Your task to perform on an android device: Open calendar and show me the second week of next month Image 0: 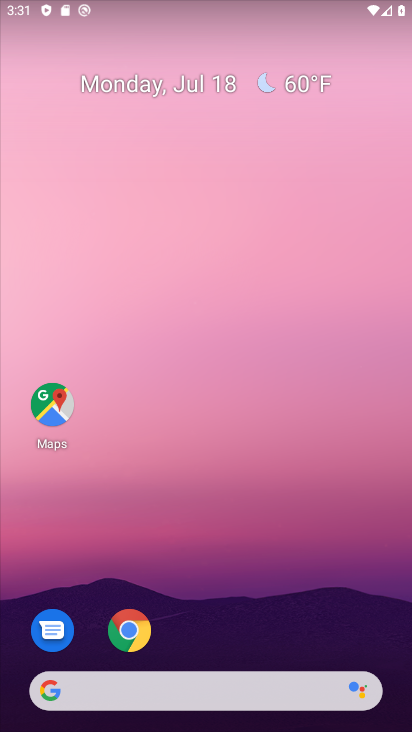
Step 0: drag from (228, 563) to (160, 127)
Your task to perform on an android device: Open calendar and show me the second week of next month Image 1: 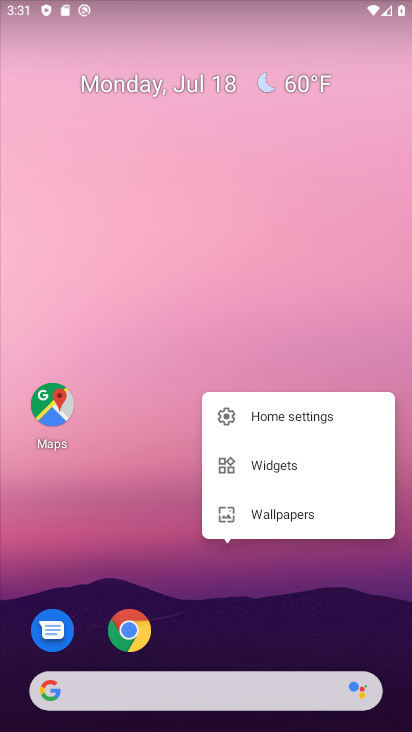
Step 1: click (219, 629)
Your task to perform on an android device: Open calendar and show me the second week of next month Image 2: 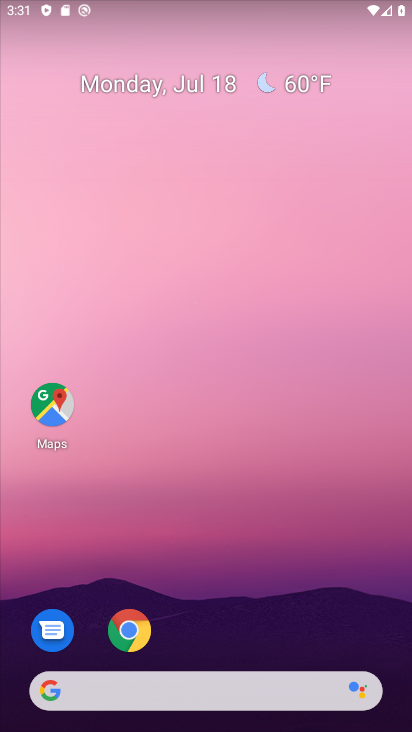
Step 2: drag from (286, 589) to (273, 484)
Your task to perform on an android device: Open calendar and show me the second week of next month Image 3: 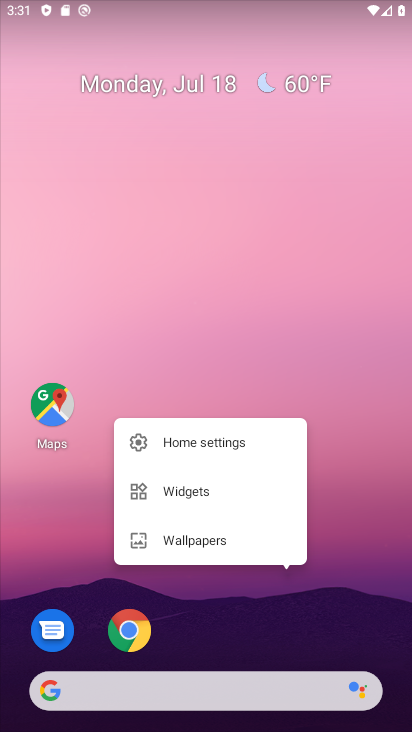
Step 3: click (359, 557)
Your task to perform on an android device: Open calendar and show me the second week of next month Image 4: 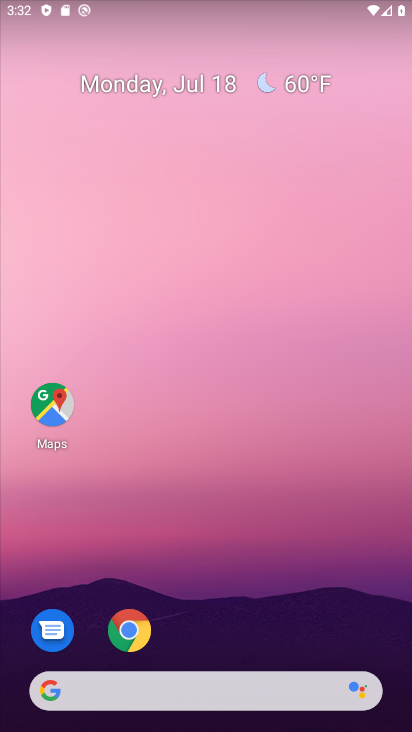
Step 4: drag from (295, 609) to (276, 16)
Your task to perform on an android device: Open calendar and show me the second week of next month Image 5: 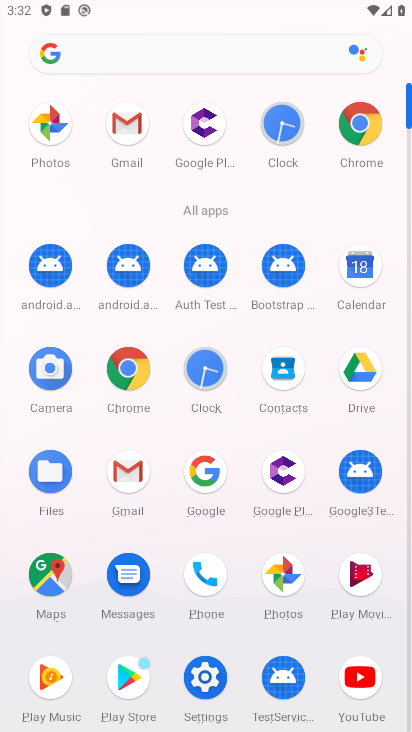
Step 5: click (360, 277)
Your task to perform on an android device: Open calendar and show me the second week of next month Image 6: 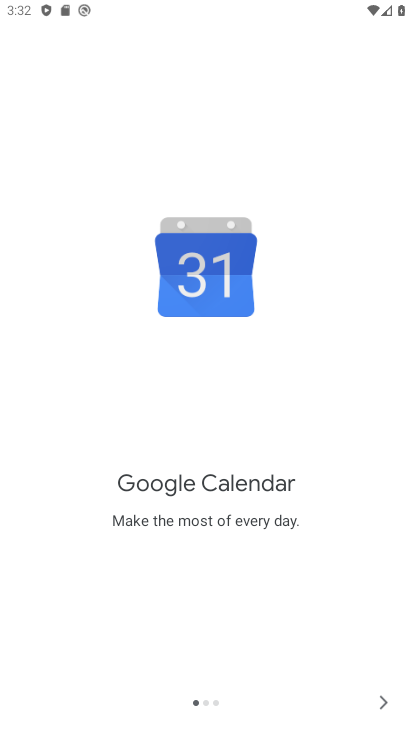
Step 6: click (379, 703)
Your task to perform on an android device: Open calendar and show me the second week of next month Image 7: 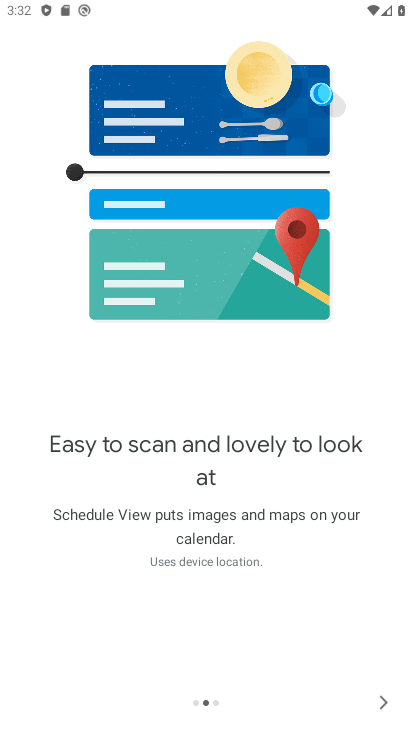
Step 7: click (379, 703)
Your task to perform on an android device: Open calendar and show me the second week of next month Image 8: 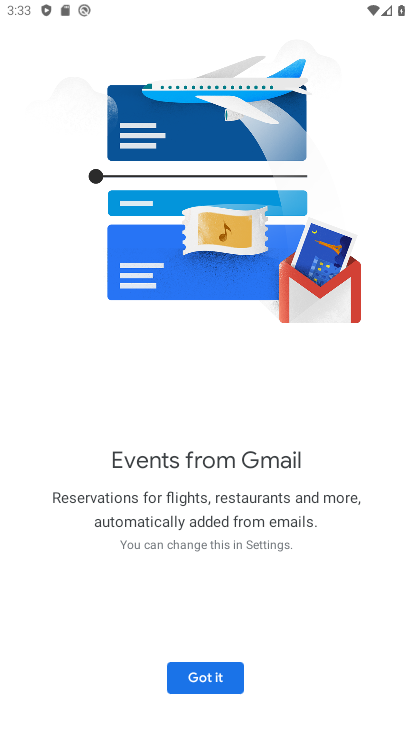
Step 8: click (196, 674)
Your task to perform on an android device: Open calendar and show me the second week of next month Image 9: 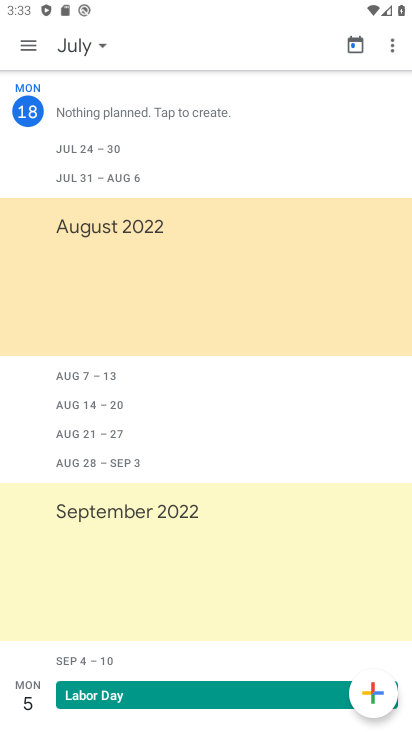
Step 9: click (32, 53)
Your task to perform on an android device: Open calendar and show me the second week of next month Image 10: 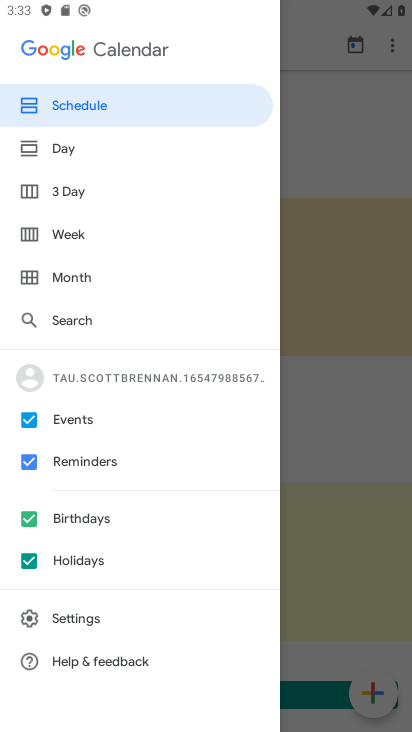
Step 10: click (85, 236)
Your task to perform on an android device: Open calendar and show me the second week of next month Image 11: 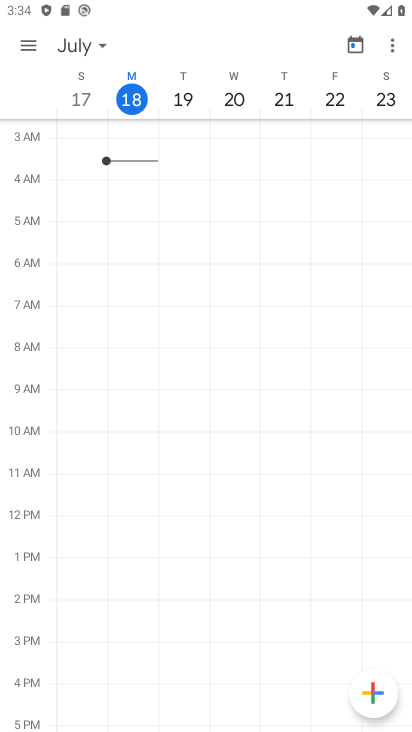
Step 11: click (86, 43)
Your task to perform on an android device: Open calendar and show me the second week of next month Image 12: 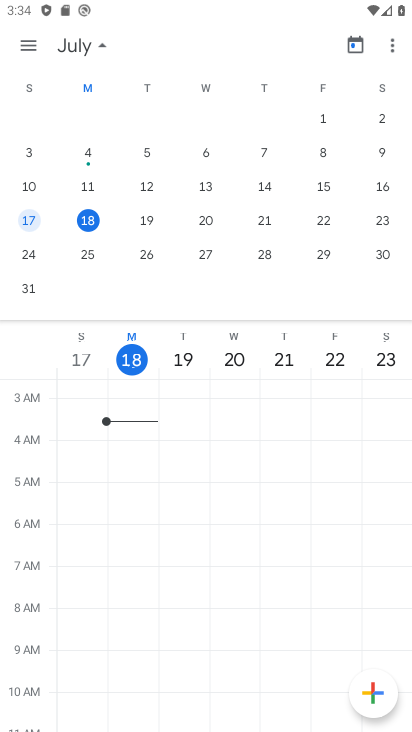
Step 12: drag from (338, 250) to (9, 249)
Your task to perform on an android device: Open calendar and show me the second week of next month Image 13: 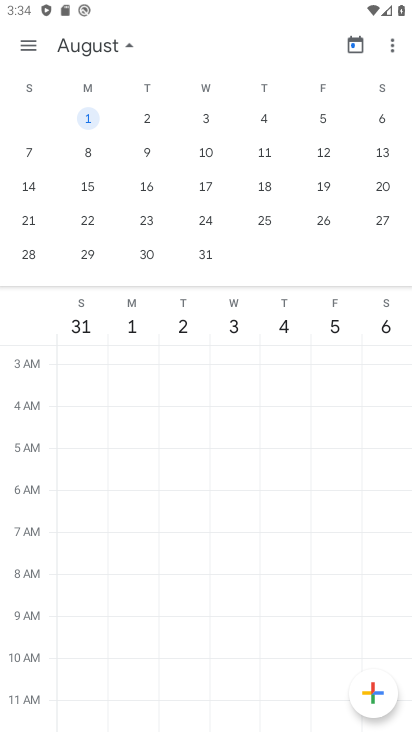
Step 13: click (150, 155)
Your task to perform on an android device: Open calendar and show me the second week of next month Image 14: 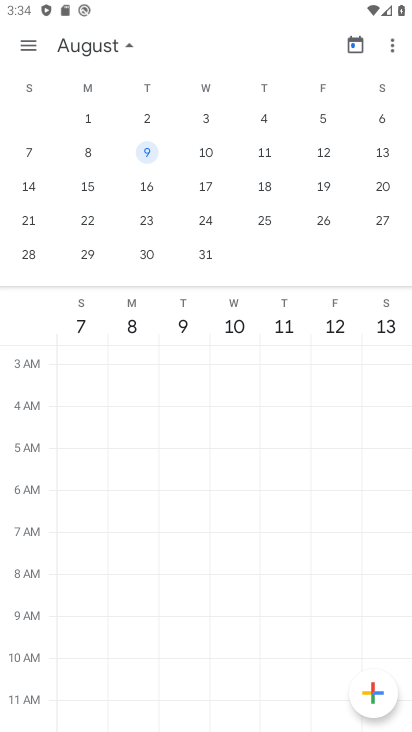
Step 14: task complete